Your task to perform on an android device: Go to sound settings Image 0: 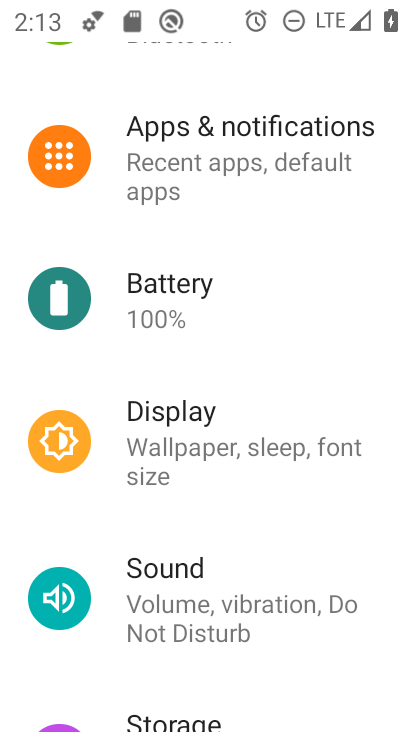
Step 0: drag from (347, 255) to (346, 330)
Your task to perform on an android device: Go to sound settings Image 1: 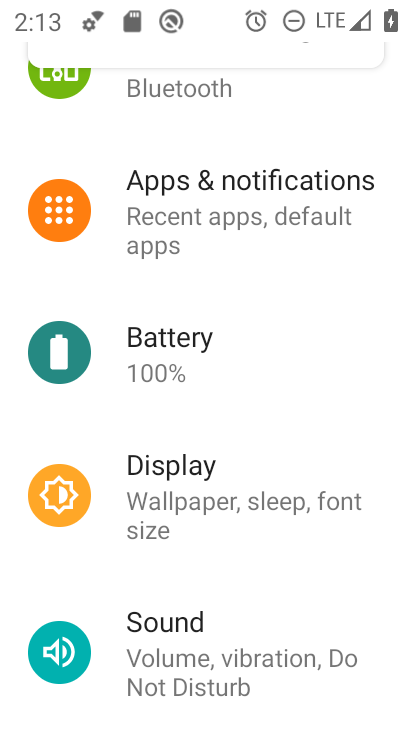
Step 1: drag from (372, 228) to (376, 336)
Your task to perform on an android device: Go to sound settings Image 2: 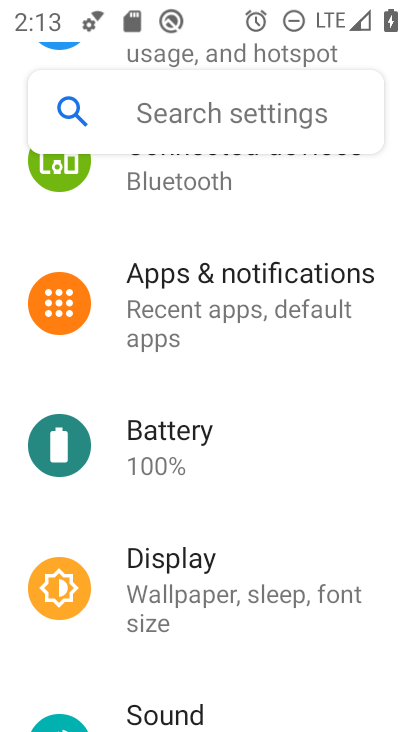
Step 2: drag from (371, 220) to (378, 339)
Your task to perform on an android device: Go to sound settings Image 3: 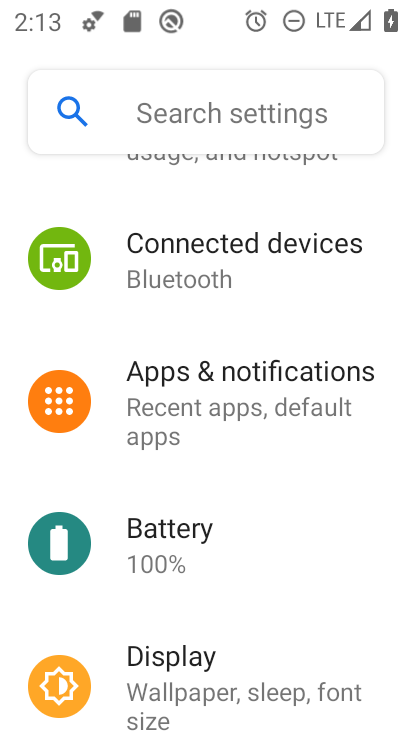
Step 3: drag from (380, 221) to (374, 347)
Your task to perform on an android device: Go to sound settings Image 4: 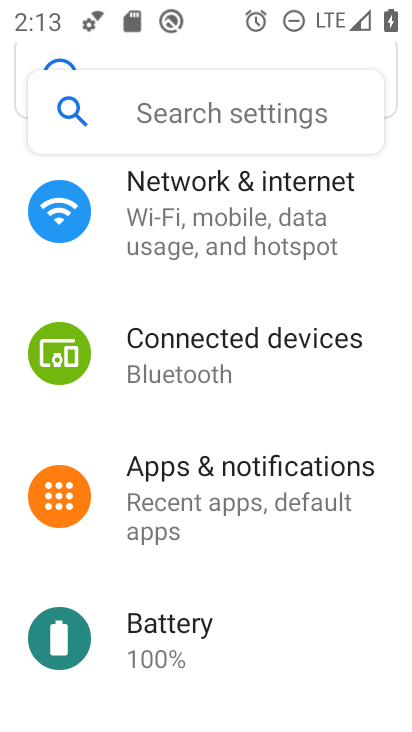
Step 4: drag from (377, 220) to (374, 383)
Your task to perform on an android device: Go to sound settings Image 5: 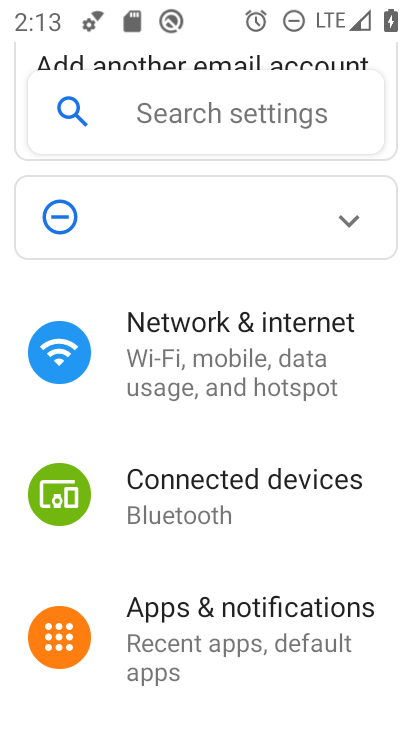
Step 5: drag from (371, 428) to (375, 327)
Your task to perform on an android device: Go to sound settings Image 6: 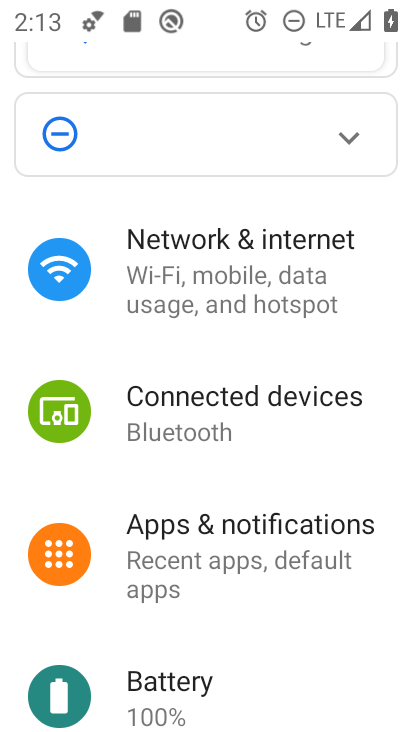
Step 6: drag from (364, 474) to (358, 344)
Your task to perform on an android device: Go to sound settings Image 7: 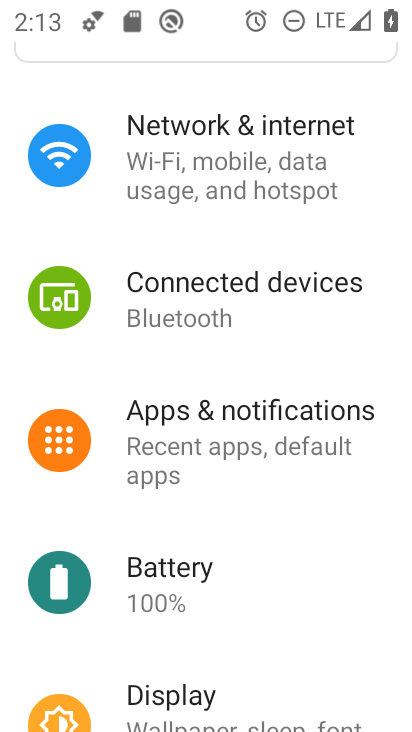
Step 7: drag from (357, 506) to (354, 378)
Your task to perform on an android device: Go to sound settings Image 8: 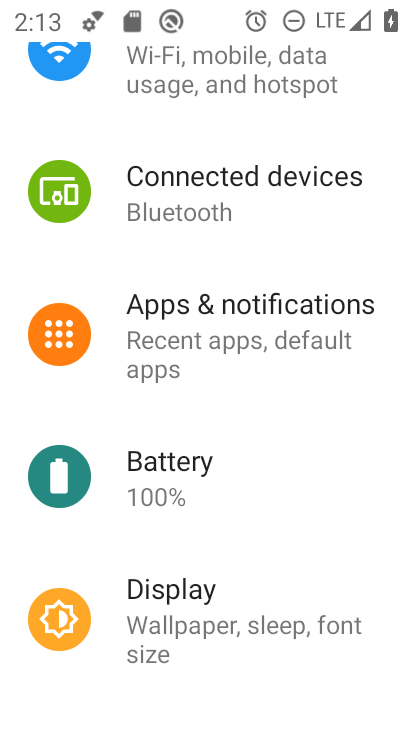
Step 8: drag from (343, 508) to (349, 329)
Your task to perform on an android device: Go to sound settings Image 9: 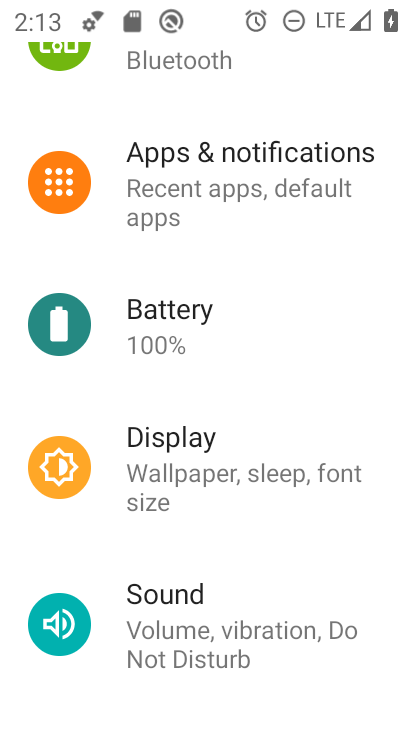
Step 9: drag from (339, 563) to (353, 385)
Your task to perform on an android device: Go to sound settings Image 10: 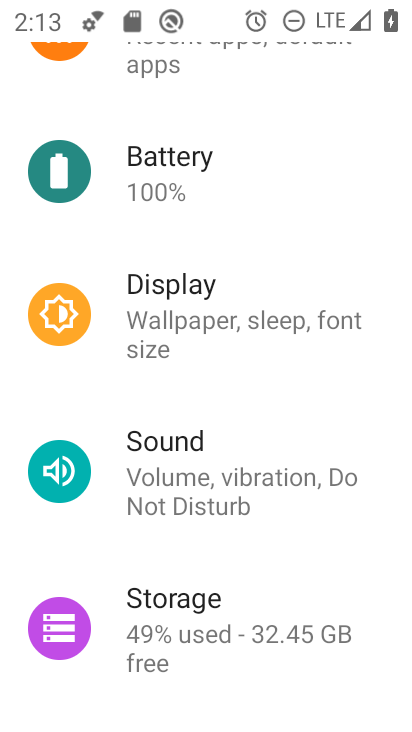
Step 10: click (293, 483)
Your task to perform on an android device: Go to sound settings Image 11: 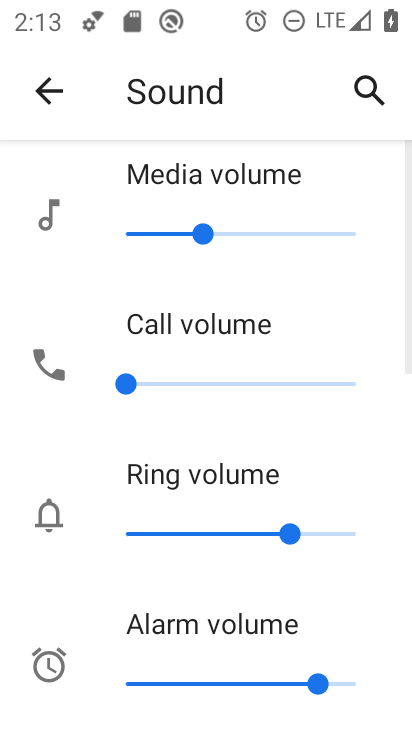
Step 11: task complete